Your task to perform on an android device: check out phone information Image 0: 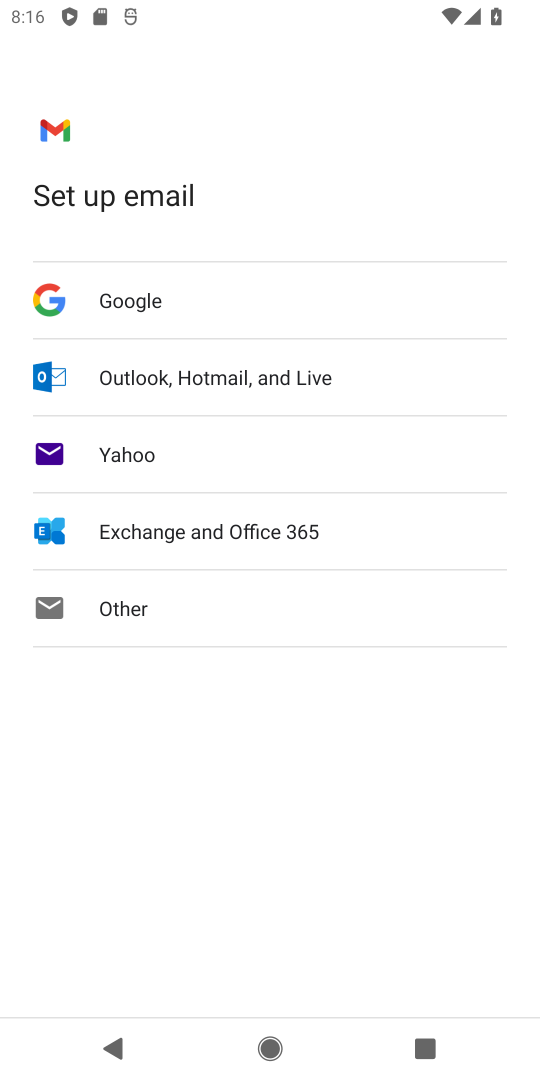
Step 0: press home button
Your task to perform on an android device: check out phone information Image 1: 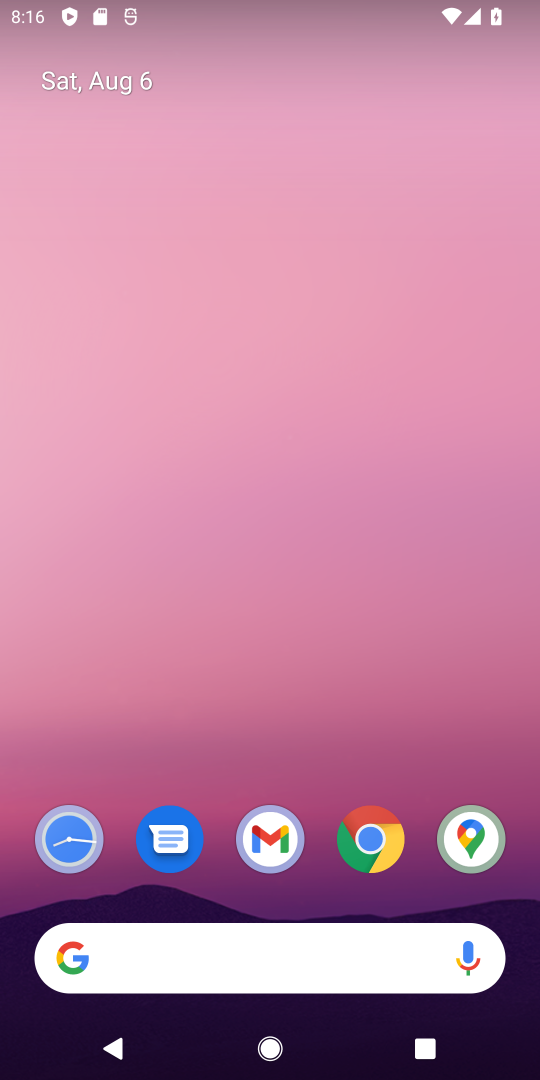
Step 1: drag from (320, 785) to (297, 251)
Your task to perform on an android device: check out phone information Image 2: 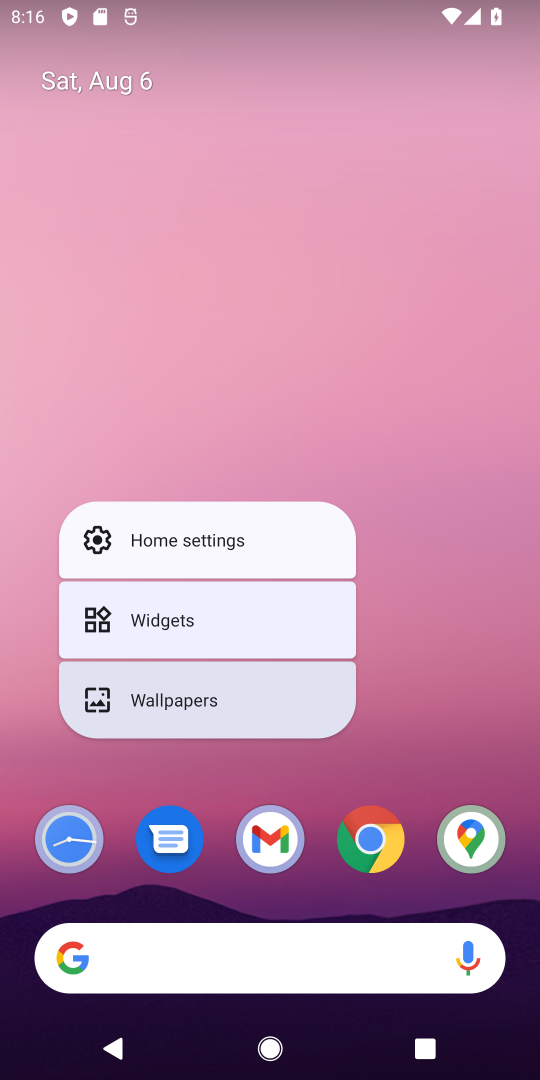
Step 2: click (341, 447)
Your task to perform on an android device: check out phone information Image 3: 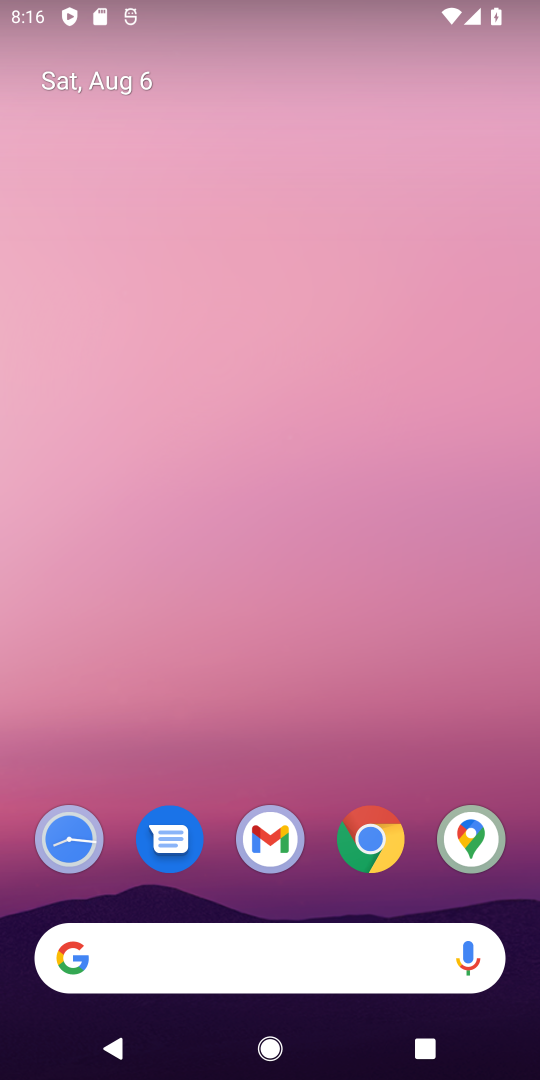
Step 3: drag from (377, 593) to (346, 73)
Your task to perform on an android device: check out phone information Image 4: 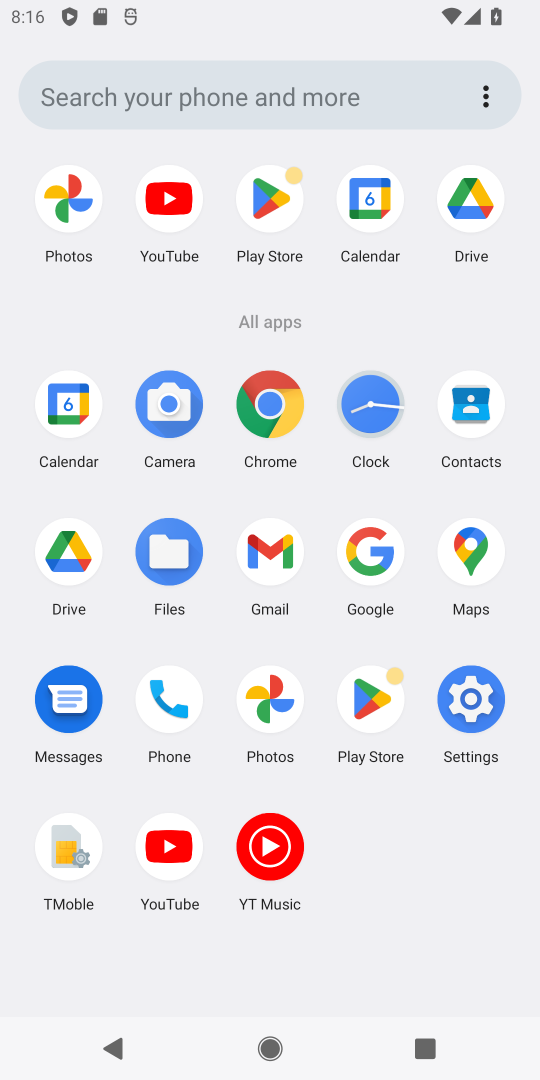
Step 4: click (488, 685)
Your task to perform on an android device: check out phone information Image 5: 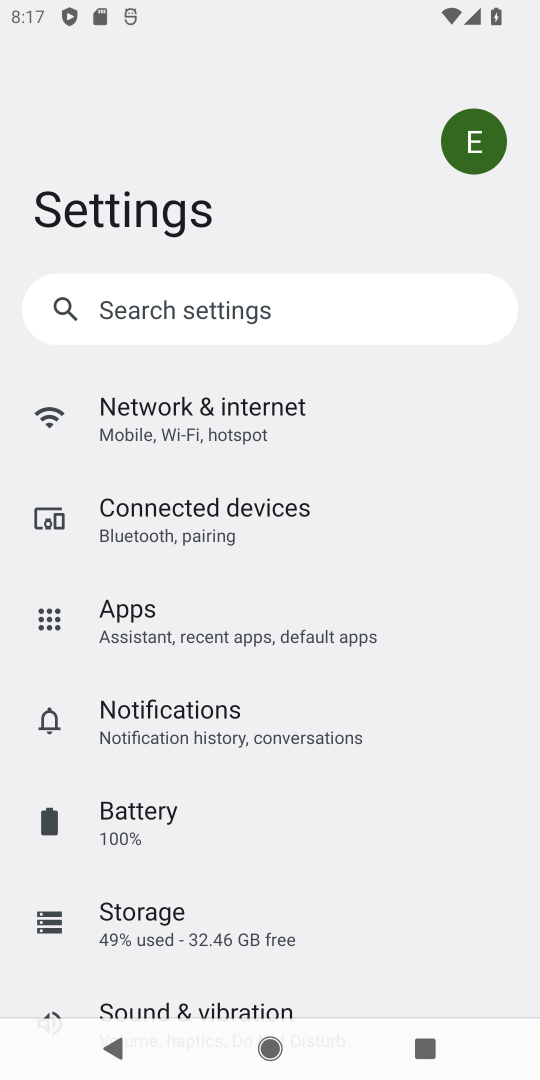
Step 5: drag from (427, 881) to (342, 30)
Your task to perform on an android device: check out phone information Image 6: 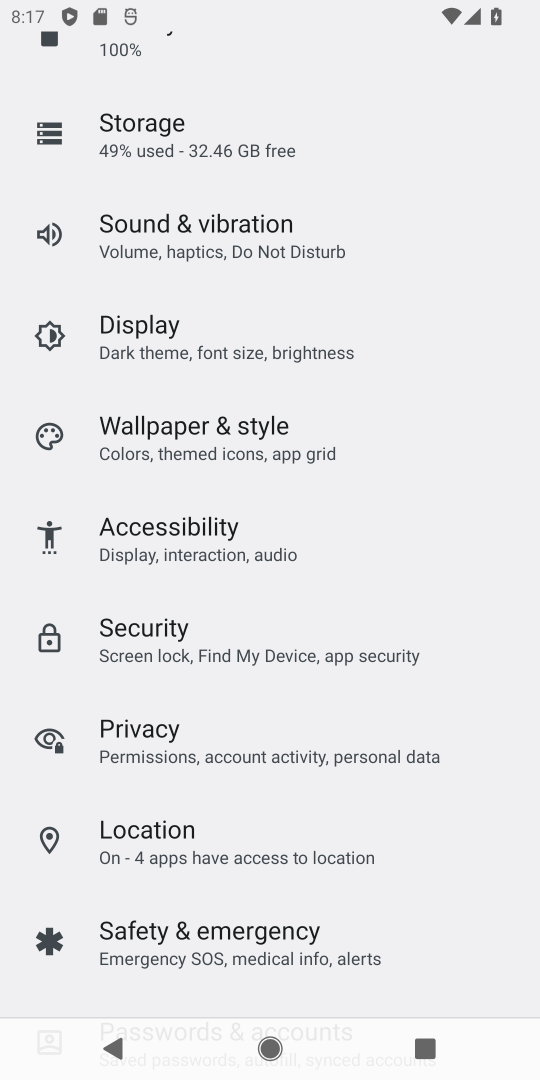
Step 6: drag from (351, 820) to (298, 142)
Your task to perform on an android device: check out phone information Image 7: 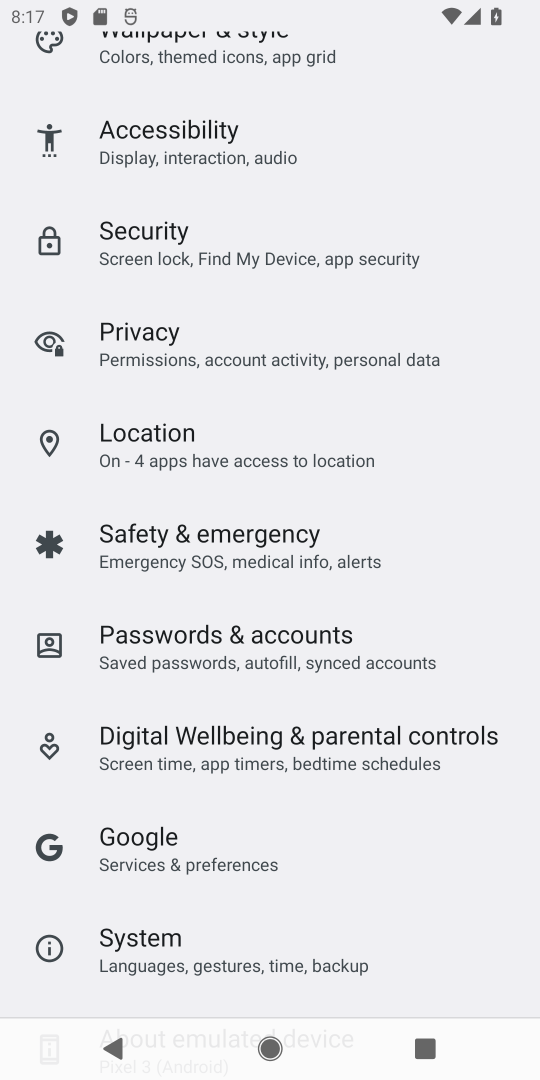
Step 7: drag from (319, 872) to (300, 339)
Your task to perform on an android device: check out phone information Image 8: 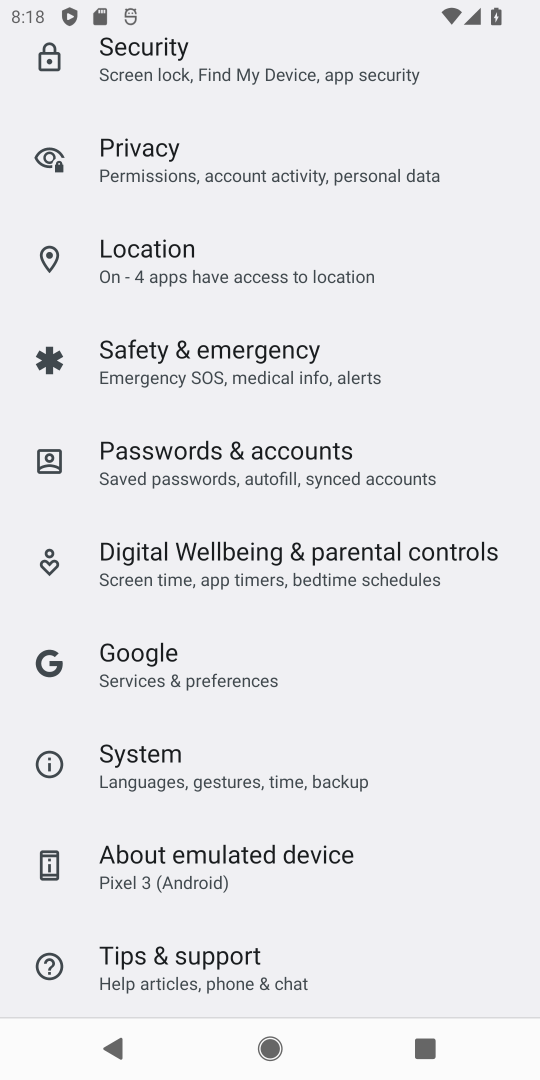
Step 8: click (237, 853)
Your task to perform on an android device: check out phone information Image 9: 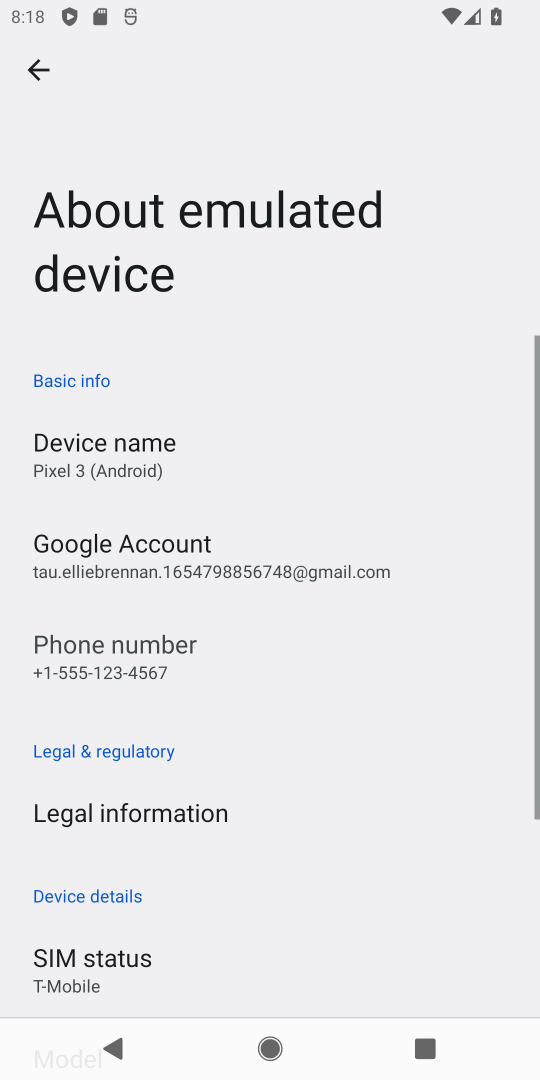
Step 9: task complete